Your task to perform on an android device: read, delete, or share a saved page in the chrome app Image 0: 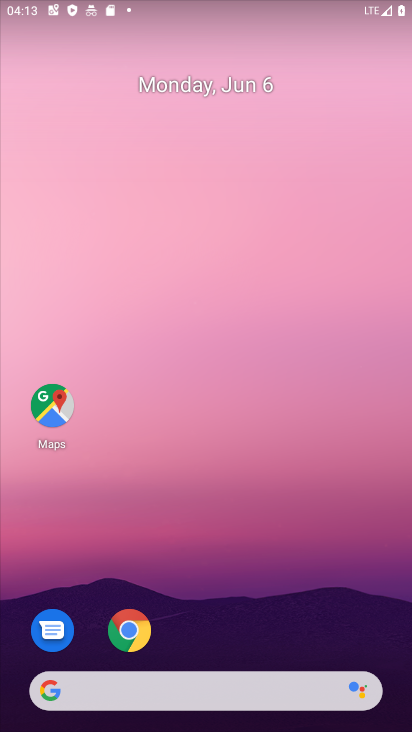
Step 0: press home button
Your task to perform on an android device: read, delete, or share a saved page in the chrome app Image 1: 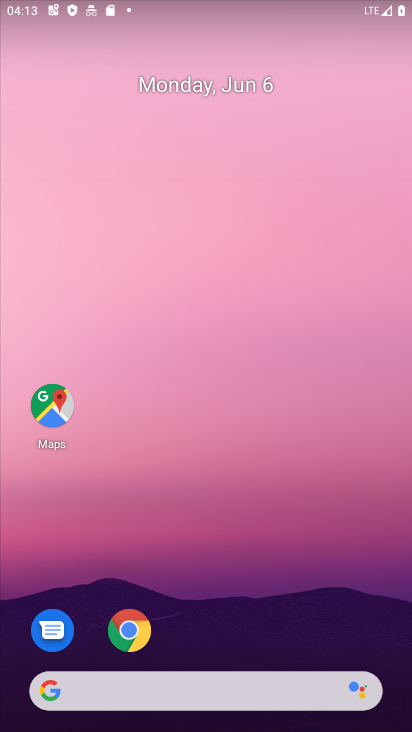
Step 1: click (135, 628)
Your task to perform on an android device: read, delete, or share a saved page in the chrome app Image 2: 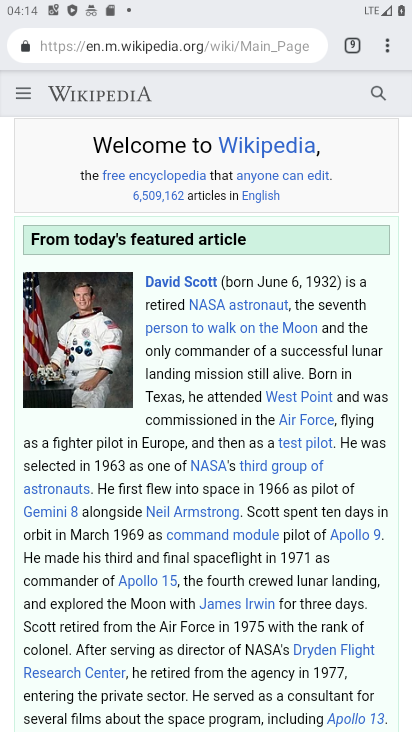
Step 2: drag from (394, 40) to (255, 543)
Your task to perform on an android device: read, delete, or share a saved page in the chrome app Image 3: 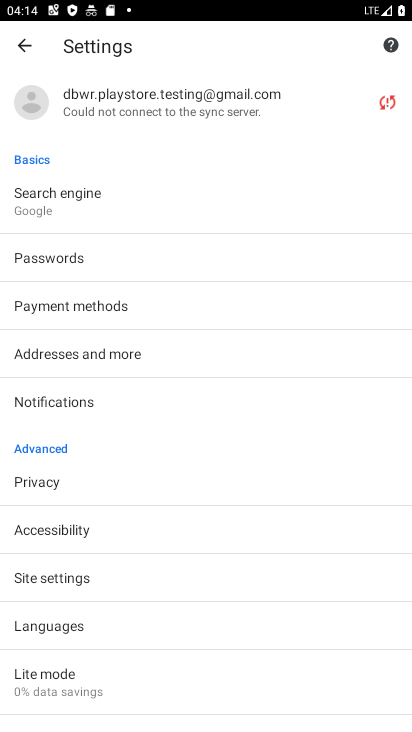
Step 3: click (38, 46)
Your task to perform on an android device: read, delete, or share a saved page in the chrome app Image 4: 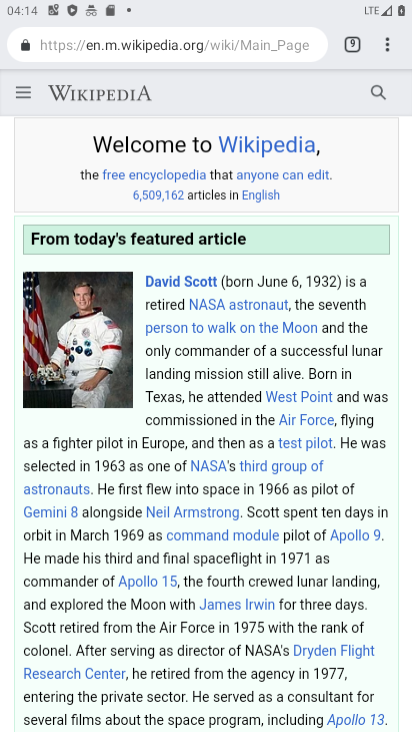
Step 4: task complete